Your task to perform on an android device: open the mobile data screen to see how much data has been used Image 0: 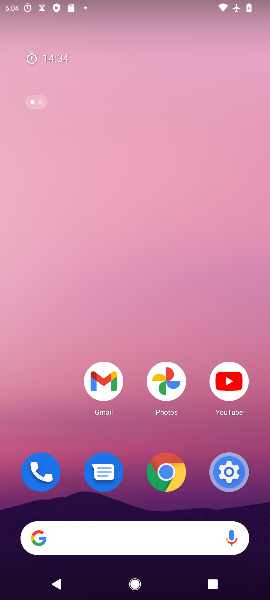
Step 0: press home button
Your task to perform on an android device: open the mobile data screen to see how much data has been used Image 1: 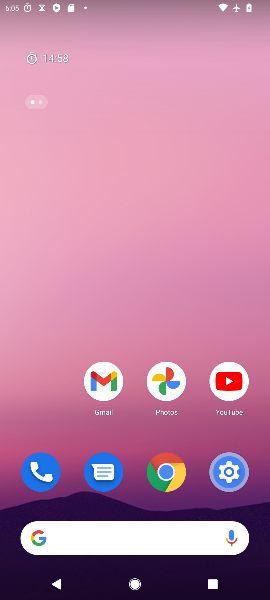
Step 1: click (225, 479)
Your task to perform on an android device: open the mobile data screen to see how much data has been used Image 2: 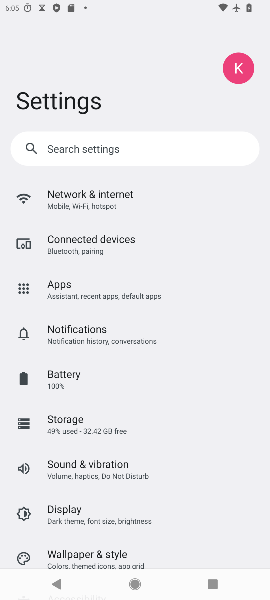
Step 2: click (91, 201)
Your task to perform on an android device: open the mobile data screen to see how much data has been used Image 3: 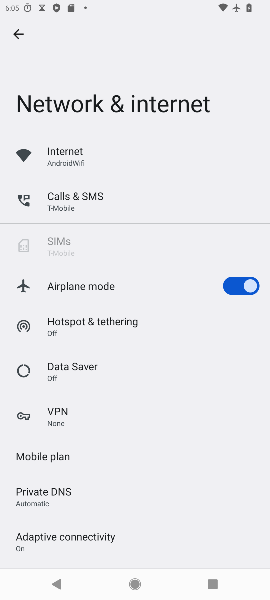
Step 3: click (45, 457)
Your task to perform on an android device: open the mobile data screen to see how much data has been used Image 4: 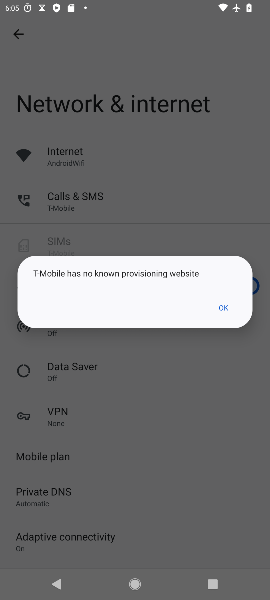
Step 4: click (223, 313)
Your task to perform on an android device: open the mobile data screen to see how much data has been used Image 5: 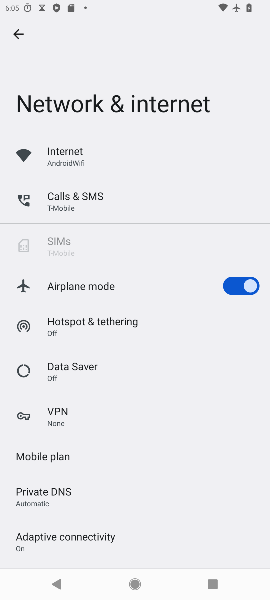
Step 5: task complete